Your task to perform on an android device: open chrome and create a bookmark for the current page Image 0: 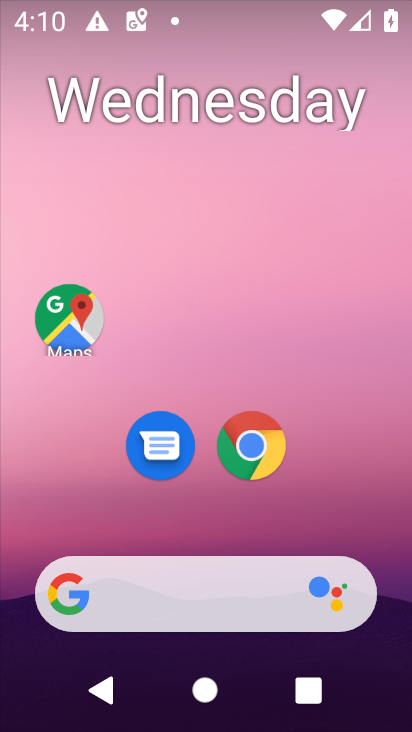
Step 0: drag from (362, 491) to (306, 3)
Your task to perform on an android device: open chrome and create a bookmark for the current page Image 1: 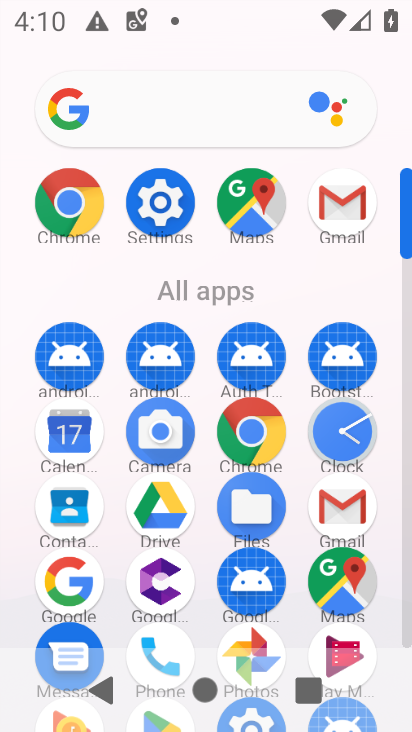
Step 1: click (247, 437)
Your task to perform on an android device: open chrome and create a bookmark for the current page Image 2: 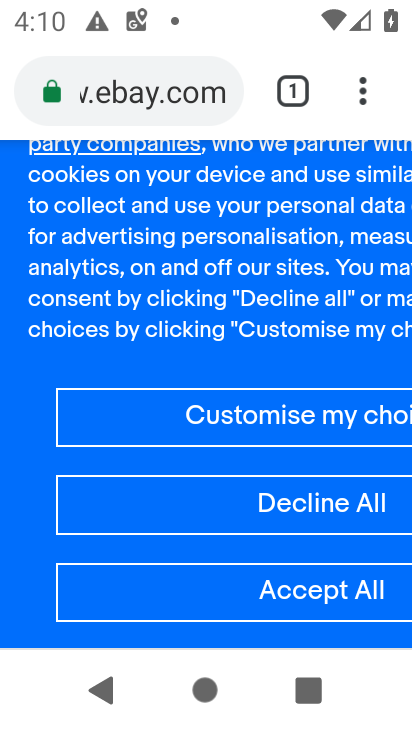
Step 2: task complete